Your task to perform on an android device: uninstall "Microsoft Excel" Image 0: 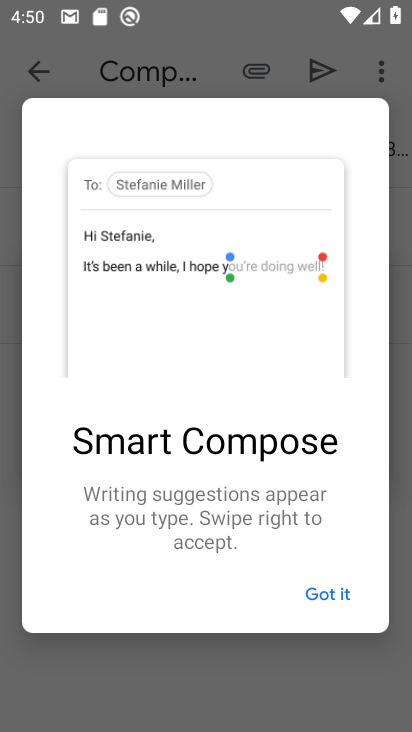
Step 0: drag from (255, 181) to (260, 123)
Your task to perform on an android device: uninstall "Microsoft Excel" Image 1: 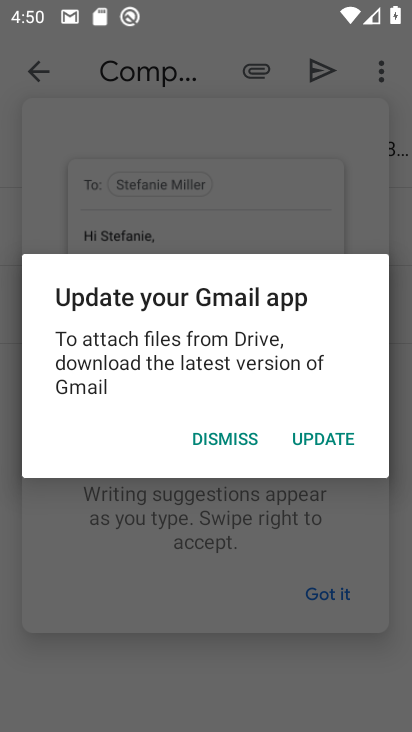
Step 1: click (248, 439)
Your task to perform on an android device: uninstall "Microsoft Excel" Image 2: 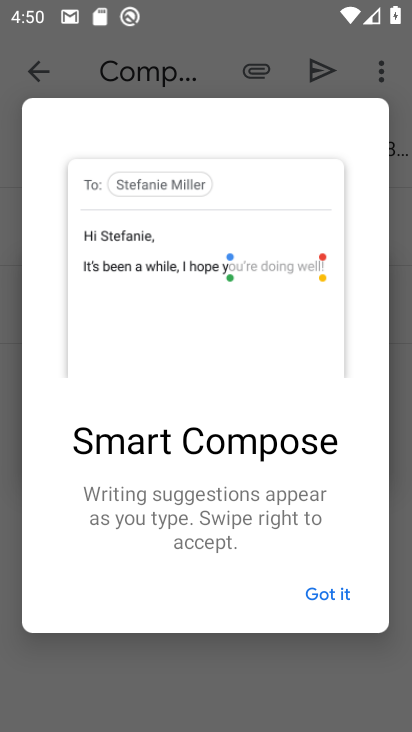
Step 2: click (319, 591)
Your task to perform on an android device: uninstall "Microsoft Excel" Image 3: 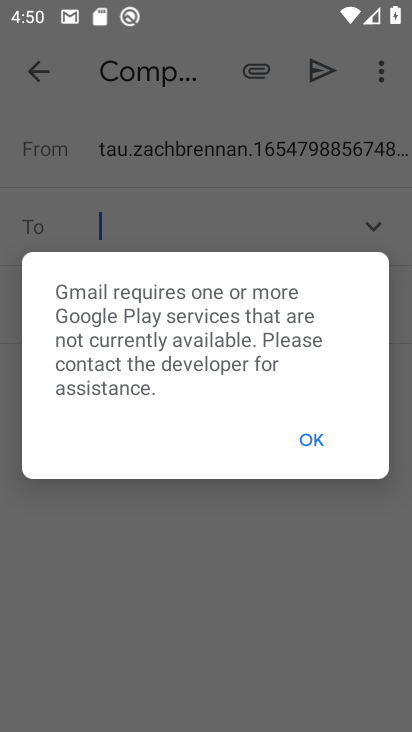
Step 3: press home button
Your task to perform on an android device: uninstall "Microsoft Excel" Image 4: 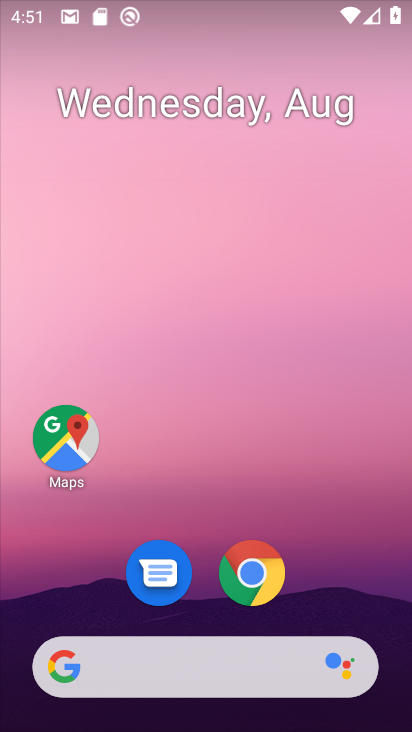
Step 4: drag from (202, 478) to (202, 127)
Your task to perform on an android device: uninstall "Microsoft Excel" Image 5: 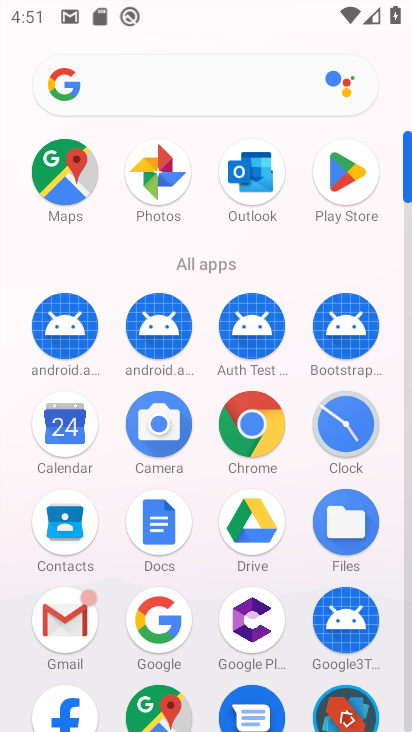
Step 5: click (343, 166)
Your task to perform on an android device: uninstall "Microsoft Excel" Image 6: 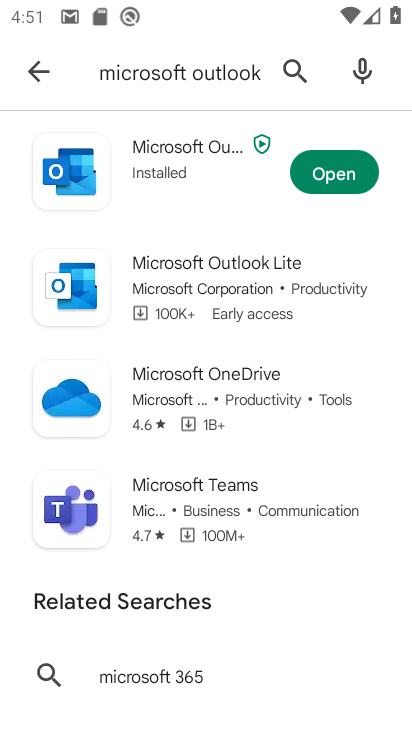
Step 6: click (39, 72)
Your task to perform on an android device: uninstall "Microsoft Excel" Image 7: 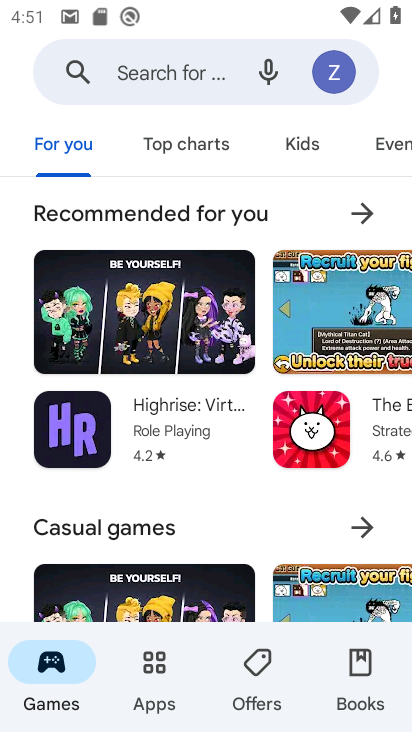
Step 7: click (126, 76)
Your task to perform on an android device: uninstall "Microsoft Excel" Image 8: 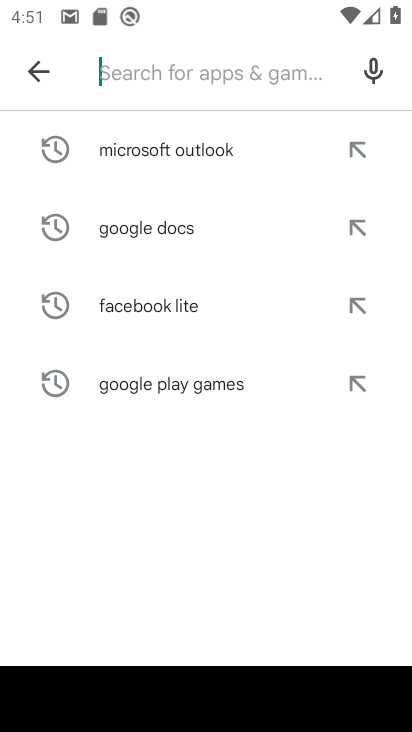
Step 8: type "Microsoft Excel"
Your task to perform on an android device: uninstall "Microsoft Excel" Image 9: 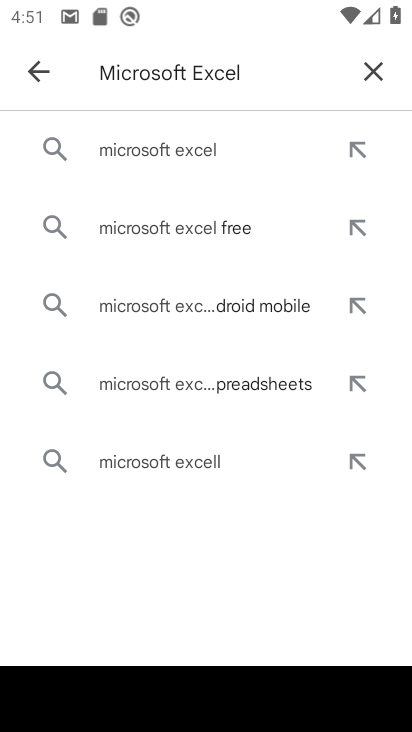
Step 9: click (187, 152)
Your task to perform on an android device: uninstall "Microsoft Excel" Image 10: 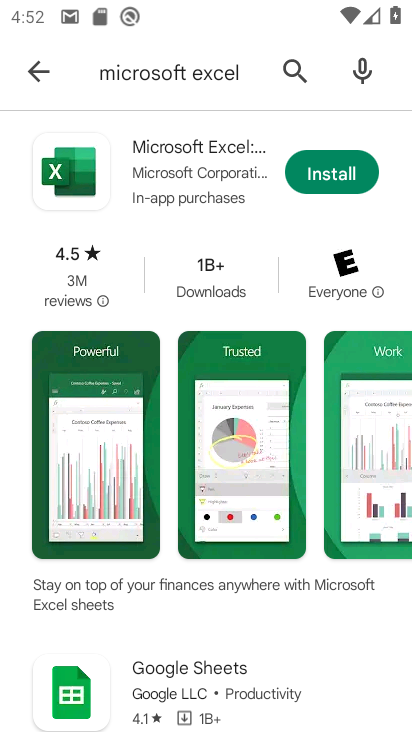
Step 10: task complete